Your task to perform on an android device: Open my contact list Image 0: 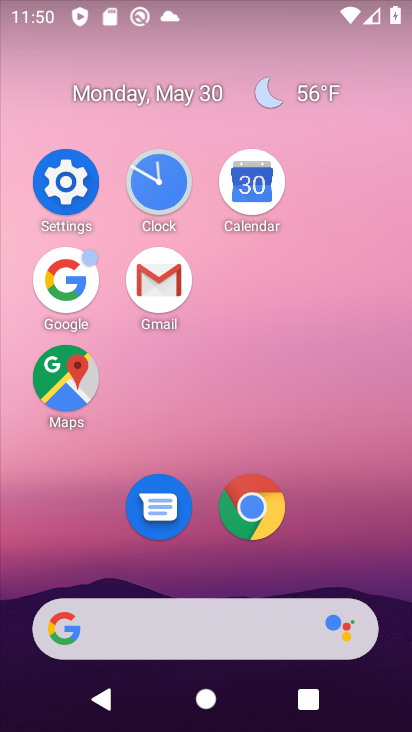
Step 0: drag from (328, 562) to (383, 89)
Your task to perform on an android device: Open my contact list Image 1: 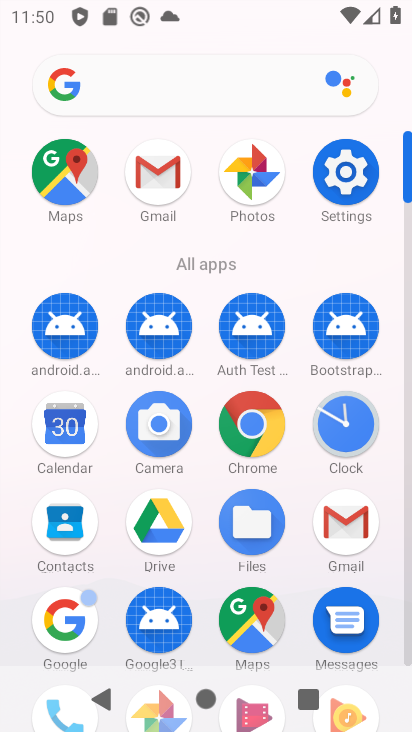
Step 1: click (66, 526)
Your task to perform on an android device: Open my contact list Image 2: 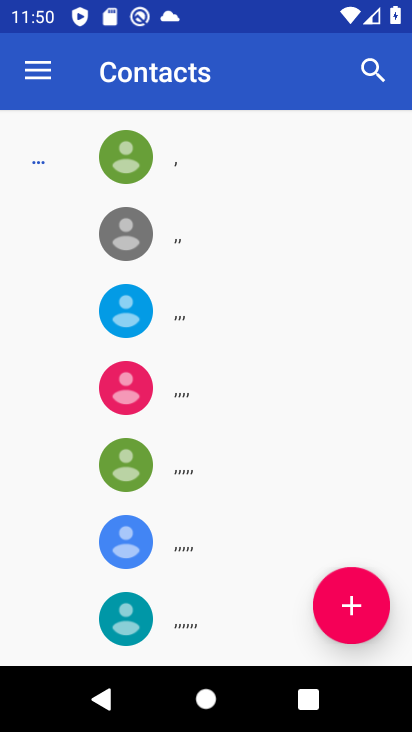
Step 2: task complete